Your task to perform on an android device: change the clock display to show seconds Image 0: 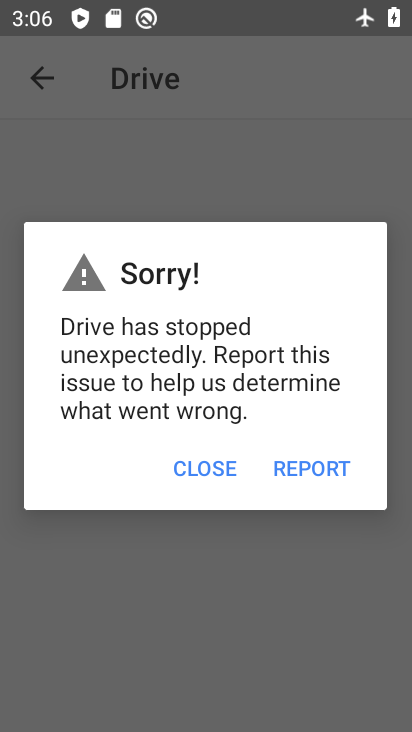
Step 0: press home button
Your task to perform on an android device: change the clock display to show seconds Image 1: 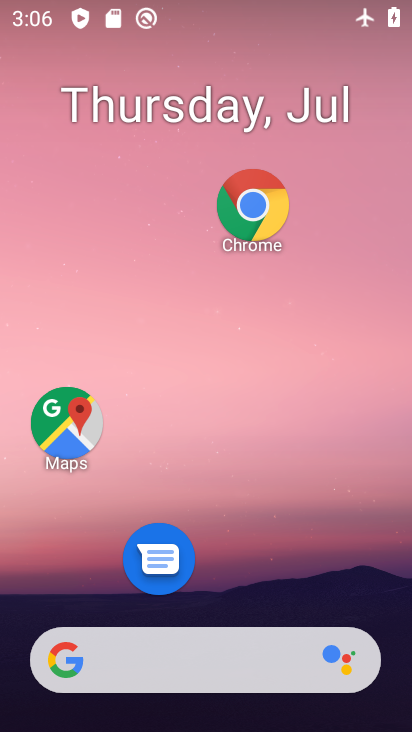
Step 1: drag from (281, 657) to (282, 366)
Your task to perform on an android device: change the clock display to show seconds Image 2: 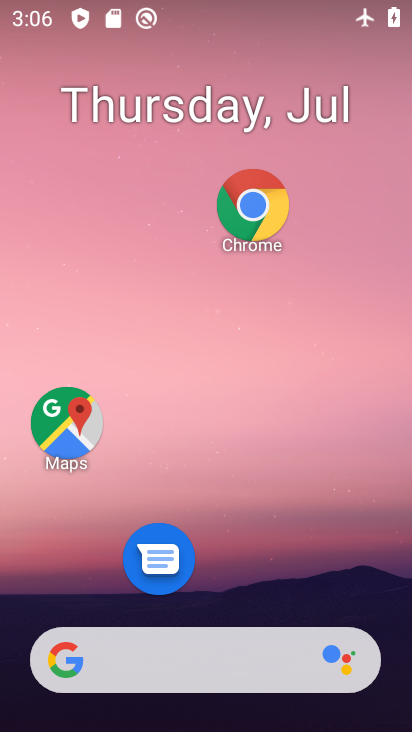
Step 2: drag from (278, 550) to (261, 122)
Your task to perform on an android device: change the clock display to show seconds Image 3: 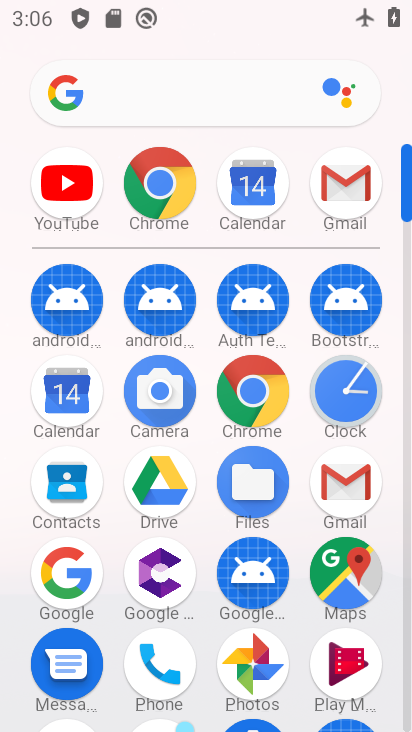
Step 3: click (341, 400)
Your task to perform on an android device: change the clock display to show seconds Image 4: 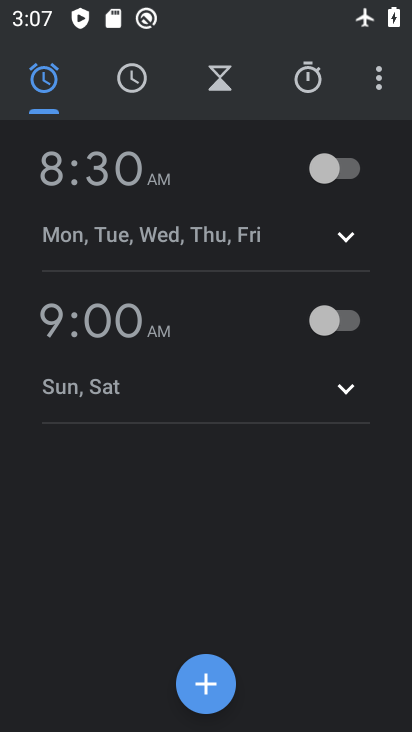
Step 4: click (376, 75)
Your task to perform on an android device: change the clock display to show seconds Image 5: 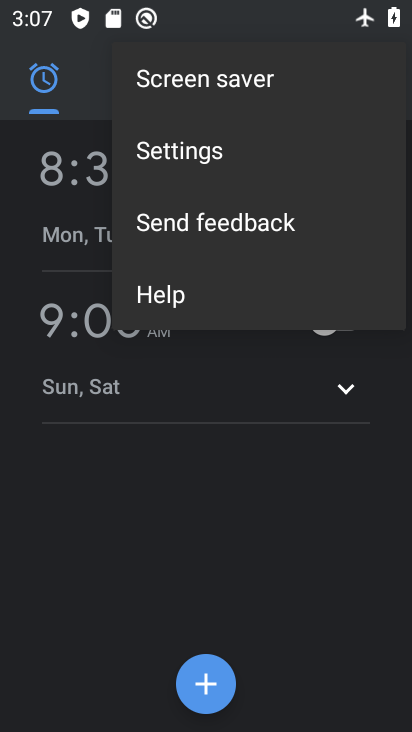
Step 5: click (195, 154)
Your task to perform on an android device: change the clock display to show seconds Image 6: 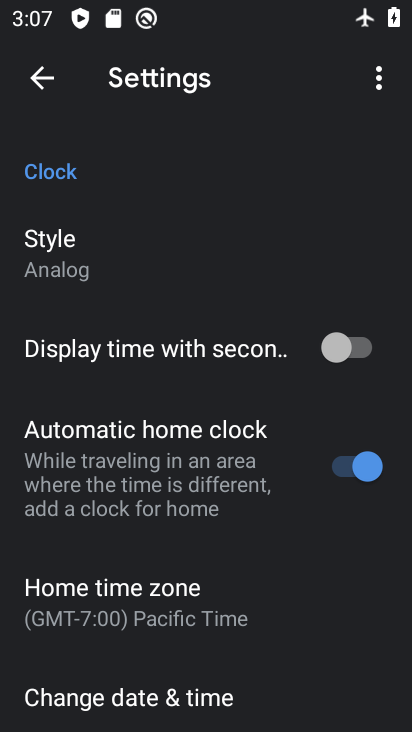
Step 6: click (357, 328)
Your task to perform on an android device: change the clock display to show seconds Image 7: 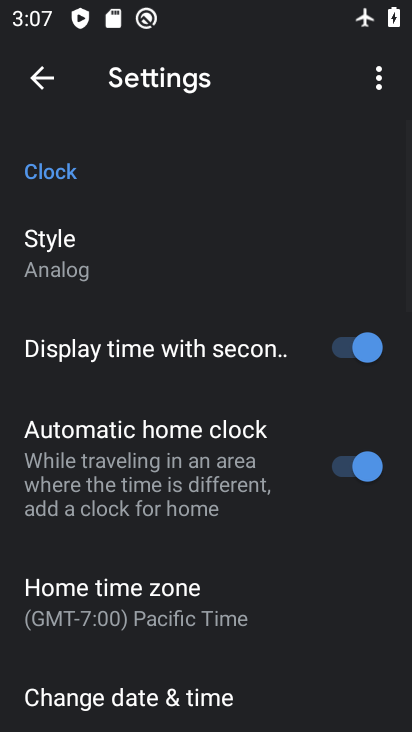
Step 7: task complete